Your task to perform on an android device: Search for pizza restaurants on Maps Image 0: 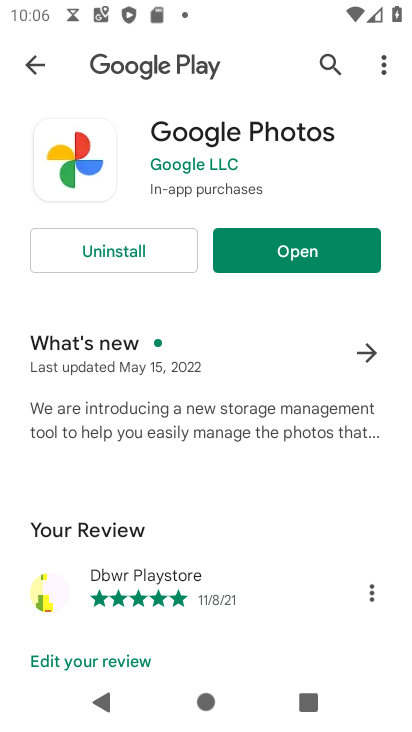
Step 0: press home button
Your task to perform on an android device: Search for pizza restaurants on Maps Image 1: 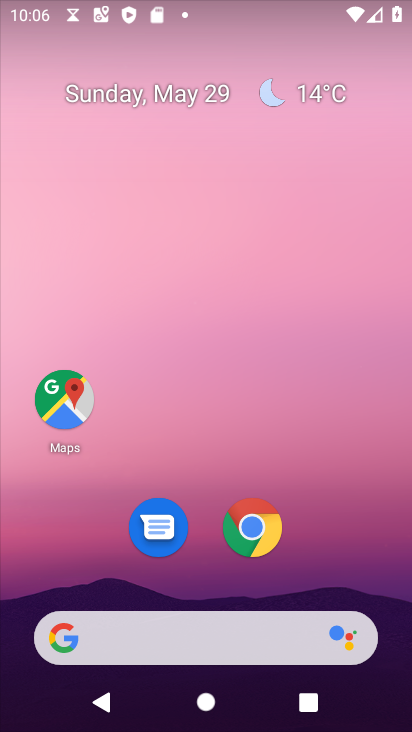
Step 1: click (61, 410)
Your task to perform on an android device: Search for pizza restaurants on Maps Image 2: 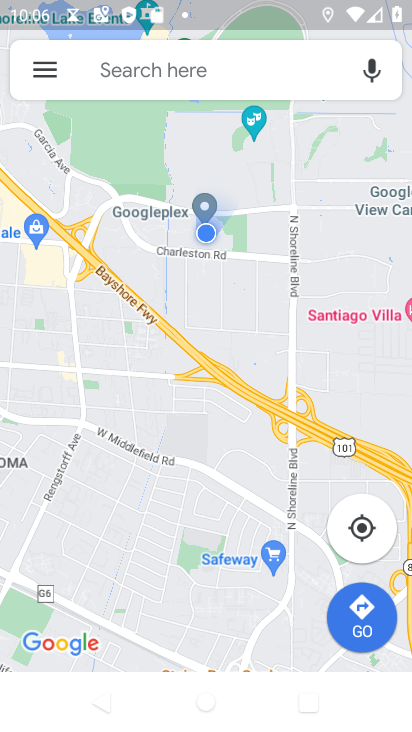
Step 2: click (230, 69)
Your task to perform on an android device: Search for pizza restaurants on Maps Image 3: 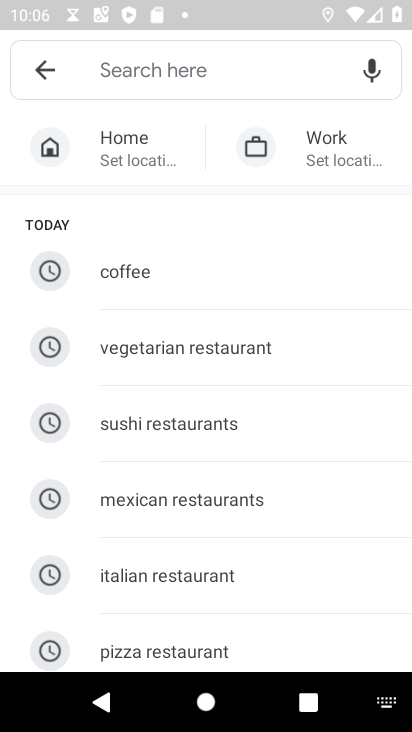
Step 3: drag from (276, 512) to (322, 213)
Your task to perform on an android device: Search for pizza restaurants on Maps Image 4: 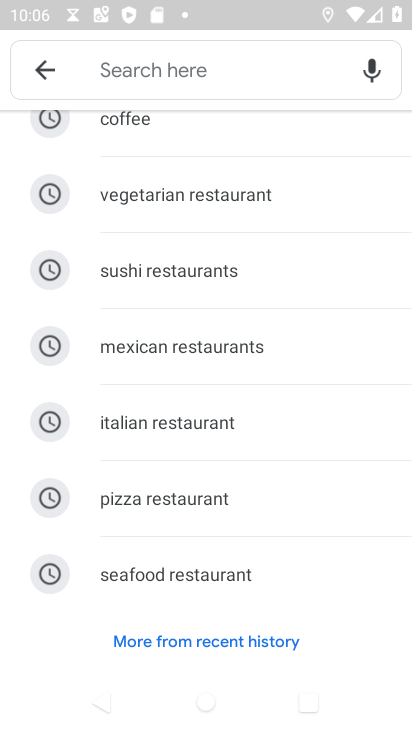
Step 4: click (209, 501)
Your task to perform on an android device: Search for pizza restaurants on Maps Image 5: 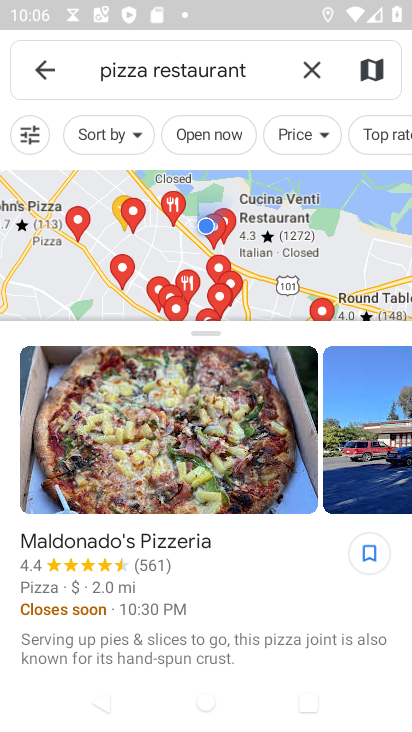
Step 5: task complete